Your task to perform on an android device: change timer sound Image 0: 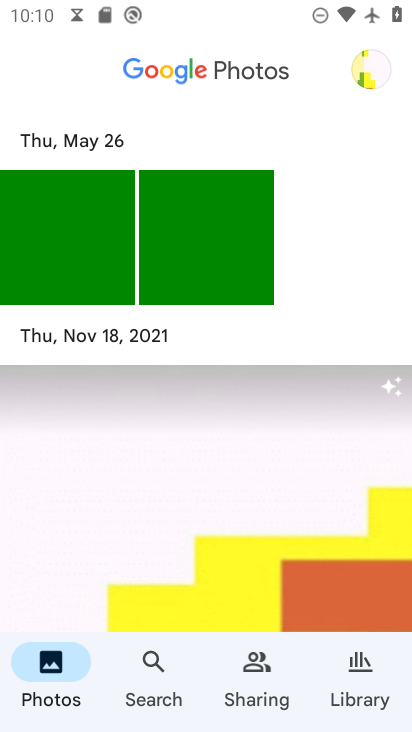
Step 0: press home button
Your task to perform on an android device: change timer sound Image 1: 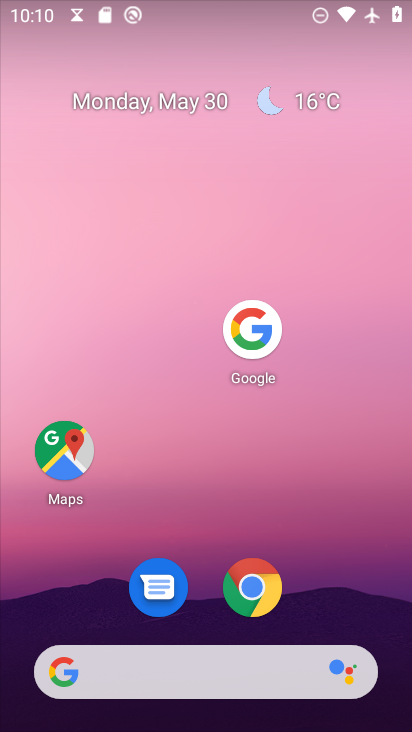
Step 1: drag from (229, 667) to (254, 122)
Your task to perform on an android device: change timer sound Image 2: 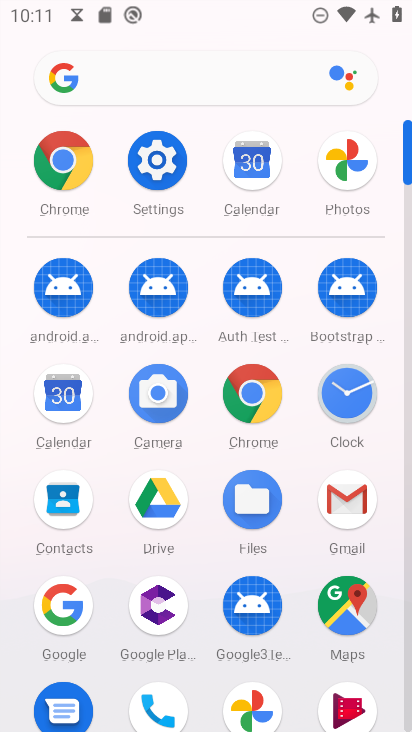
Step 2: click (349, 416)
Your task to perform on an android device: change timer sound Image 3: 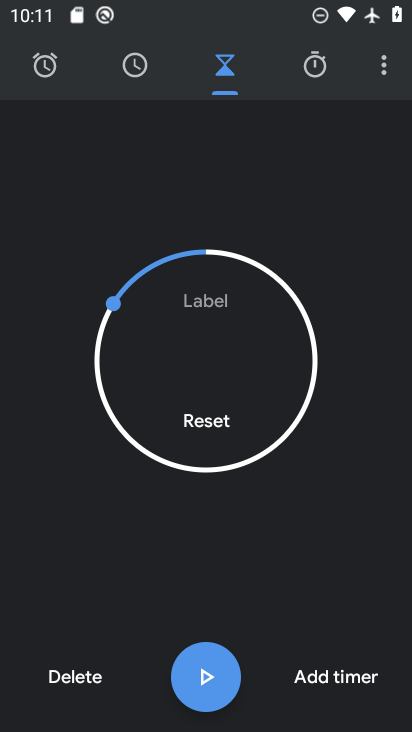
Step 3: click (68, 678)
Your task to perform on an android device: change timer sound Image 4: 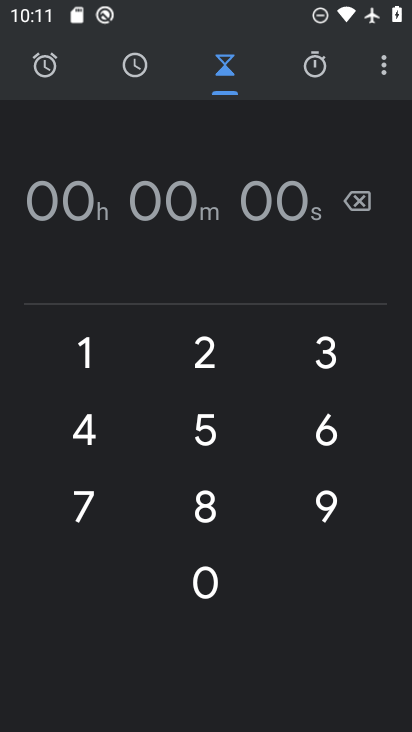
Step 4: click (388, 77)
Your task to perform on an android device: change timer sound Image 5: 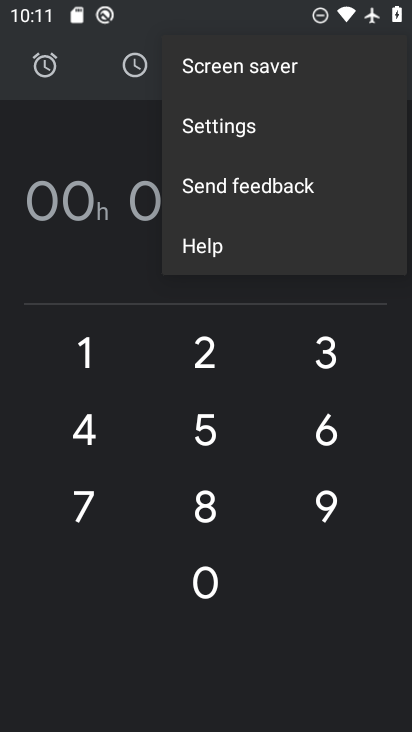
Step 5: click (228, 130)
Your task to perform on an android device: change timer sound Image 6: 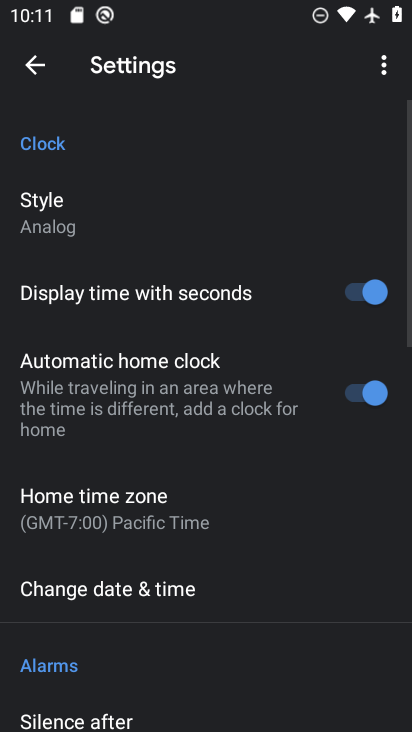
Step 6: drag from (197, 610) to (377, 94)
Your task to perform on an android device: change timer sound Image 7: 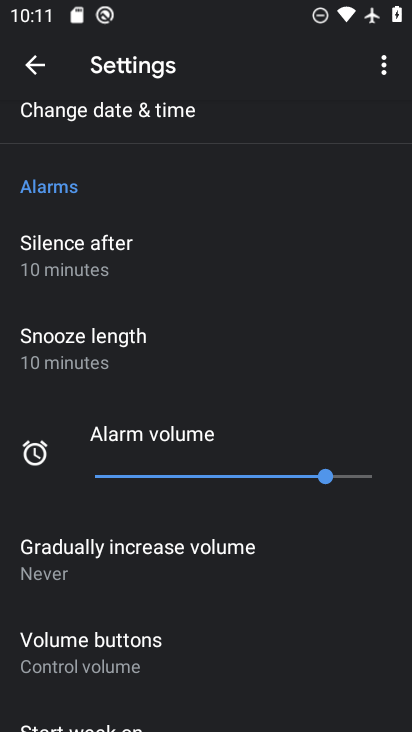
Step 7: drag from (198, 600) to (352, 131)
Your task to perform on an android device: change timer sound Image 8: 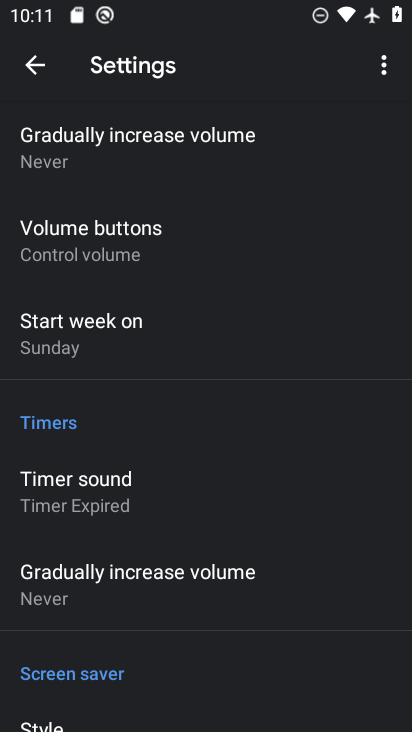
Step 8: click (67, 499)
Your task to perform on an android device: change timer sound Image 9: 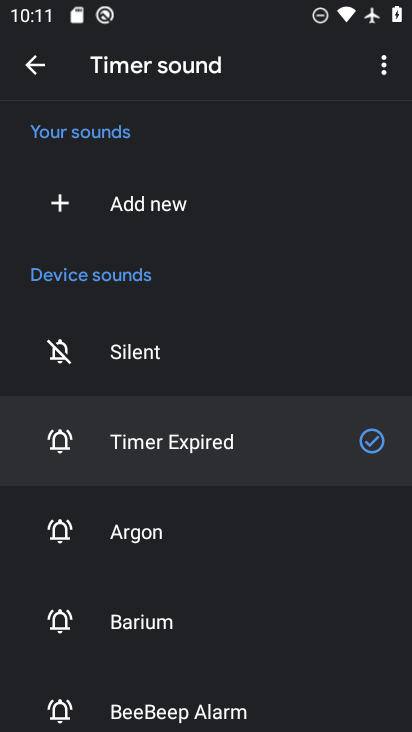
Step 9: click (274, 298)
Your task to perform on an android device: change timer sound Image 10: 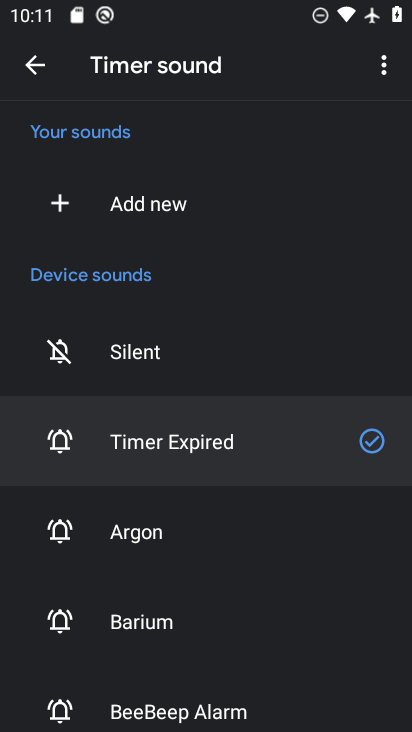
Step 10: click (217, 545)
Your task to perform on an android device: change timer sound Image 11: 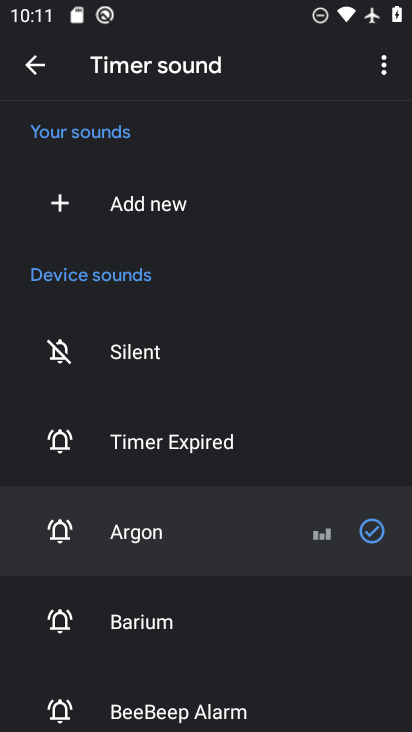
Step 11: task complete